Your task to perform on an android device: empty trash in google photos Image 0: 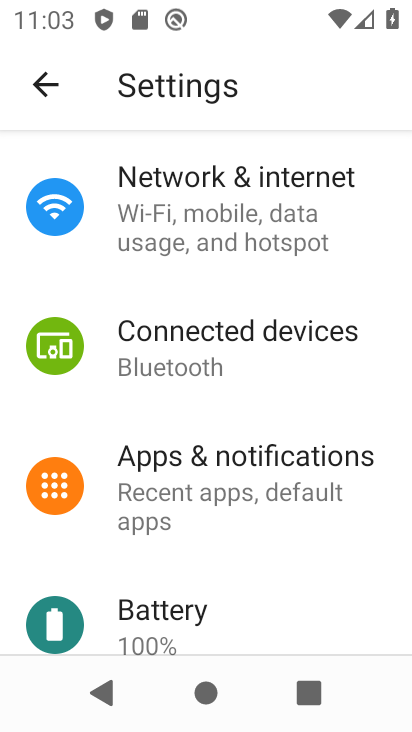
Step 0: press home button
Your task to perform on an android device: empty trash in google photos Image 1: 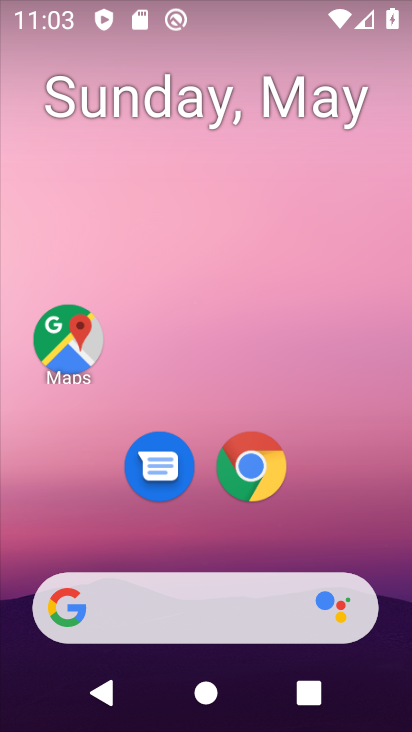
Step 1: drag from (383, 599) to (280, 45)
Your task to perform on an android device: empty trash in google photos Image 2: 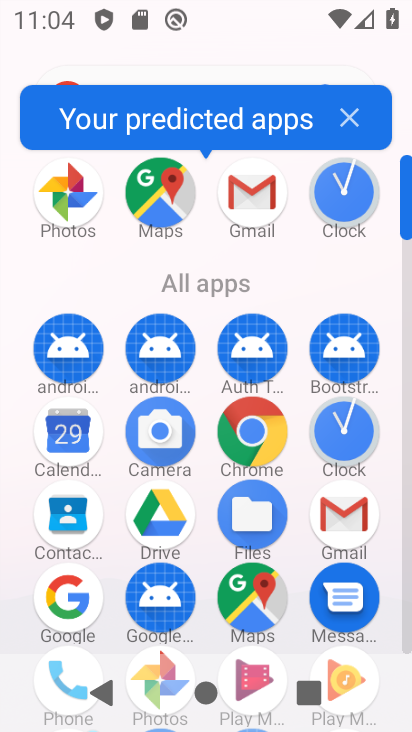
Step 2: drag from (204, 605) to (218, 183)
Your task to perform on an android device: empty trash in google photos Image 3: 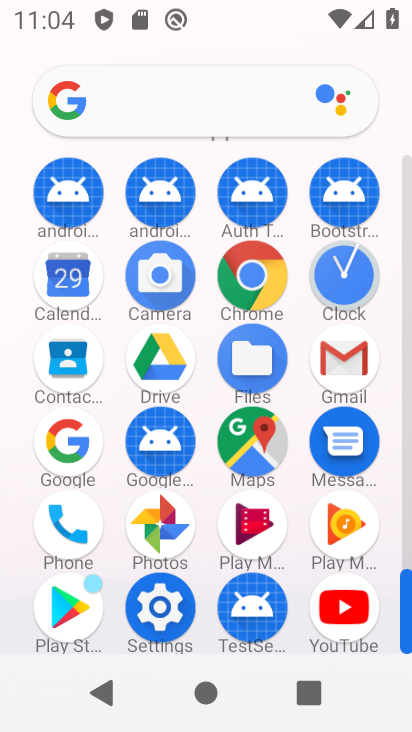
Step 3: click (182, 516)
Your task to perform on an android device: empty trash in google photos Image 4: 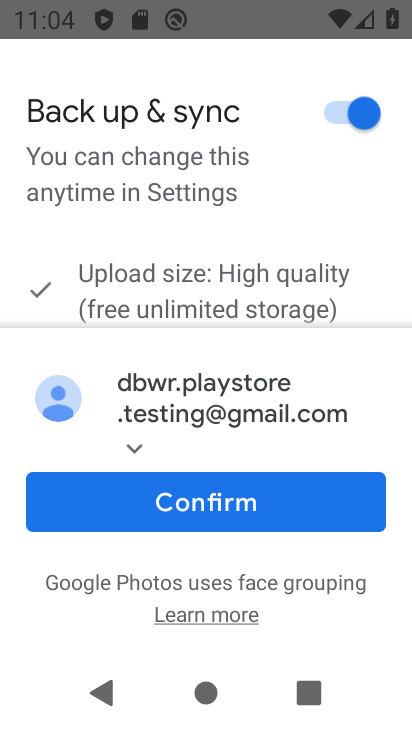
Step 4: click (216, 506)
Your task to perform on an android device: empty trash in google photos Image 5: 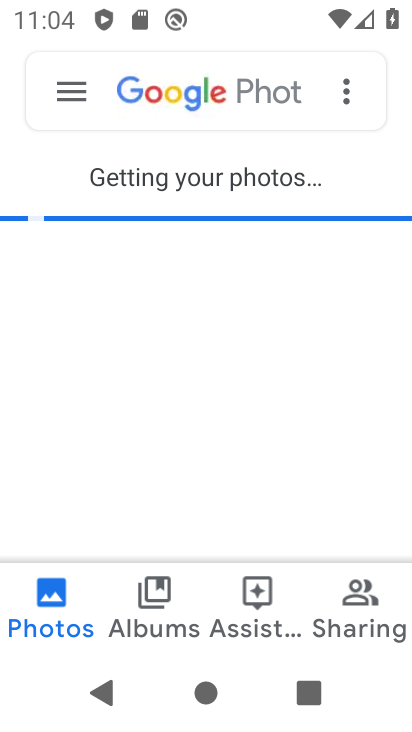
Step 5: click (46, 79)
Your task to perform on an android device: empty trash in google photos Image 6: 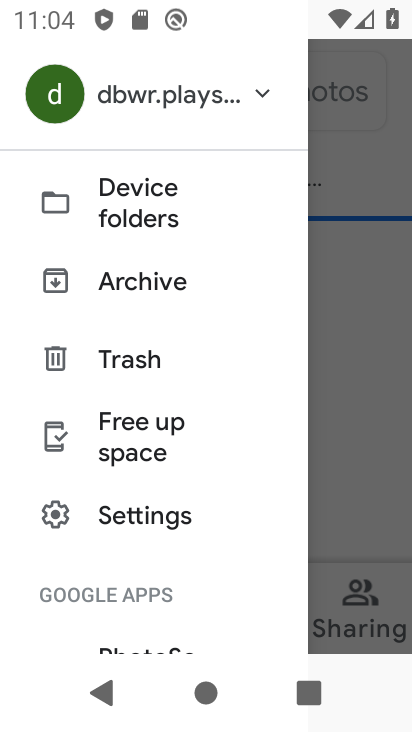
Step 6: click (150, 369)
Your task to perform on an android device: empty trash in google photos Image 7: 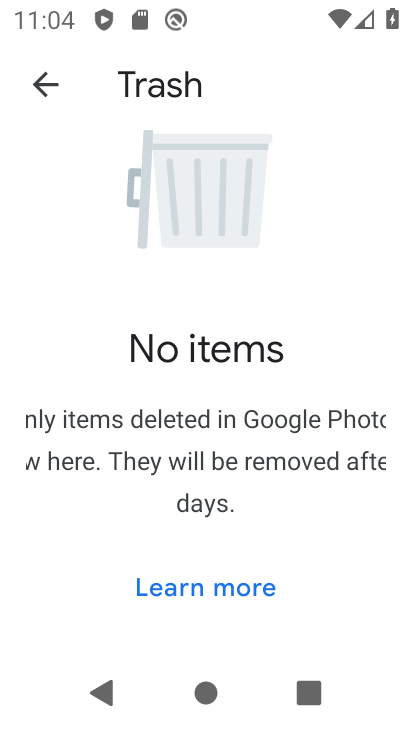
Step 7: task complete